Your task to perform on an android device: What's the weather today? Image 0: 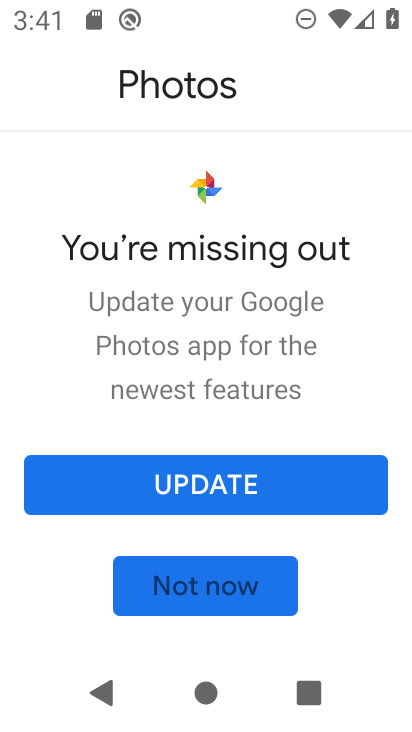
Step 0: press home button
Your task to perform on an android device: What's the weather today? Image 1: 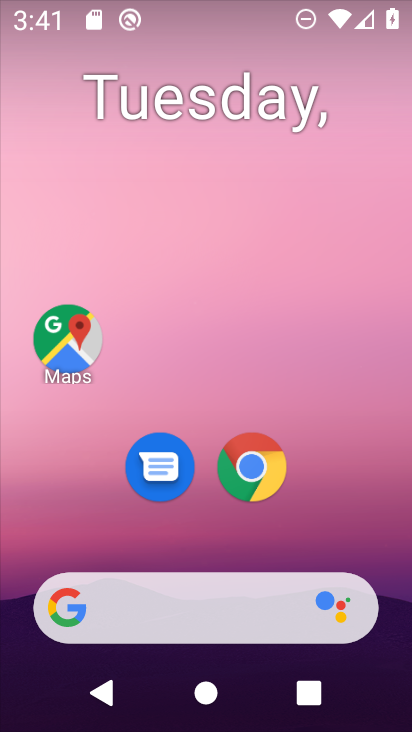
Step 1: drag from (227, 576) to (259, 37)
Your task to perform on an android device: What's the weather today? Image 2: 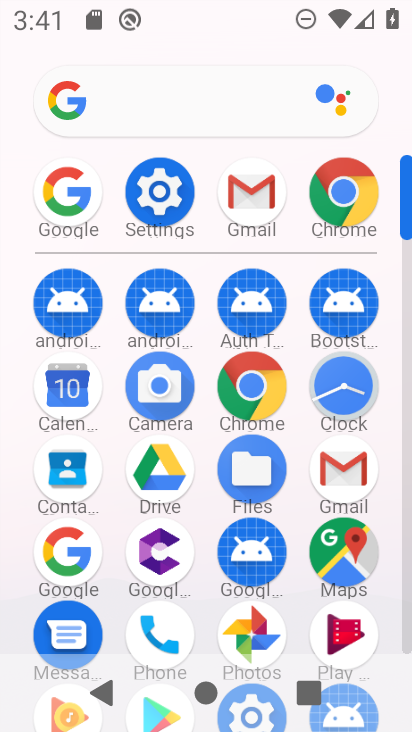
Step 2: click (78, 195)
Your task to perform on an android device: What's the weather today? Image 3: 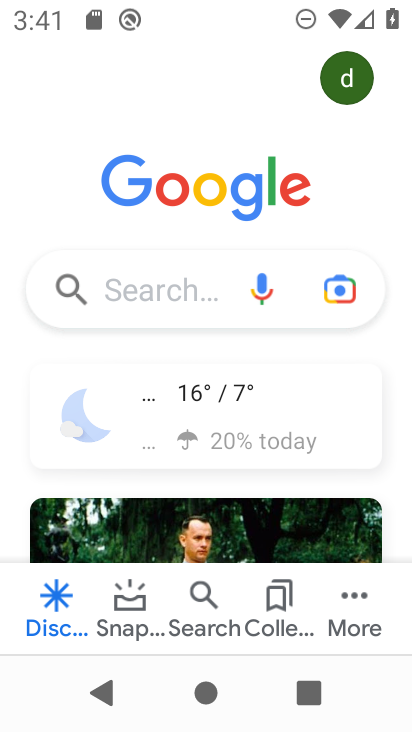
Step 3: click (108, 381)
Your task to perform on an android device: What's the weather today? Image 4: 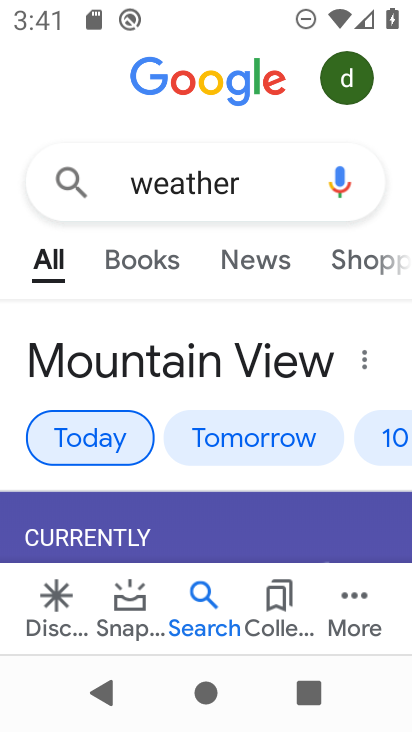
Step 4: task complete